Your task to perform on an android device: Clear all items from cart on amazon. Search for "logitech g933" on amazon, select the first entry, add it to the cart, then select checkout. Image 0: 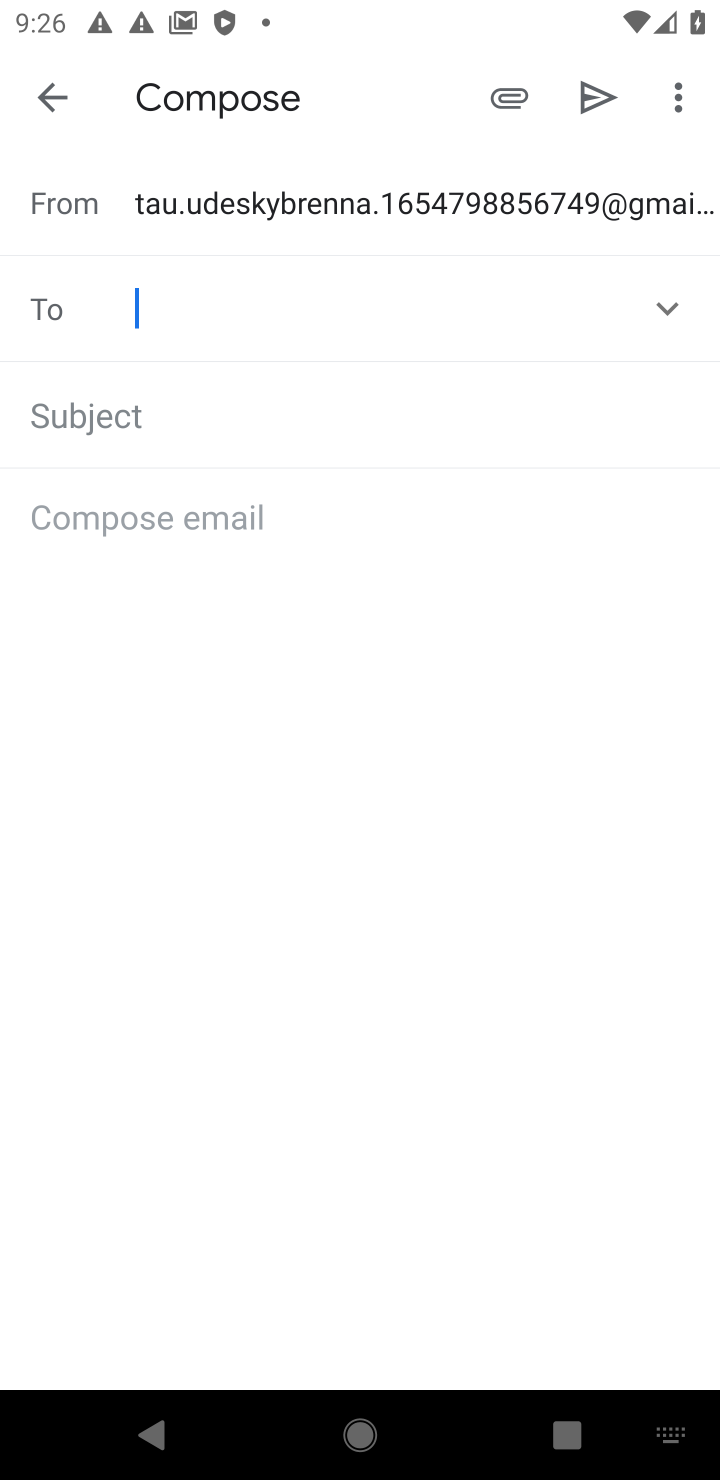
Step 0: press home button
Your task to perform on an android device: Clear all items from cart on amazon. Search for "logitech g933" on amazon, select the first entry, add it to the cart, then select checkout. Image 1: 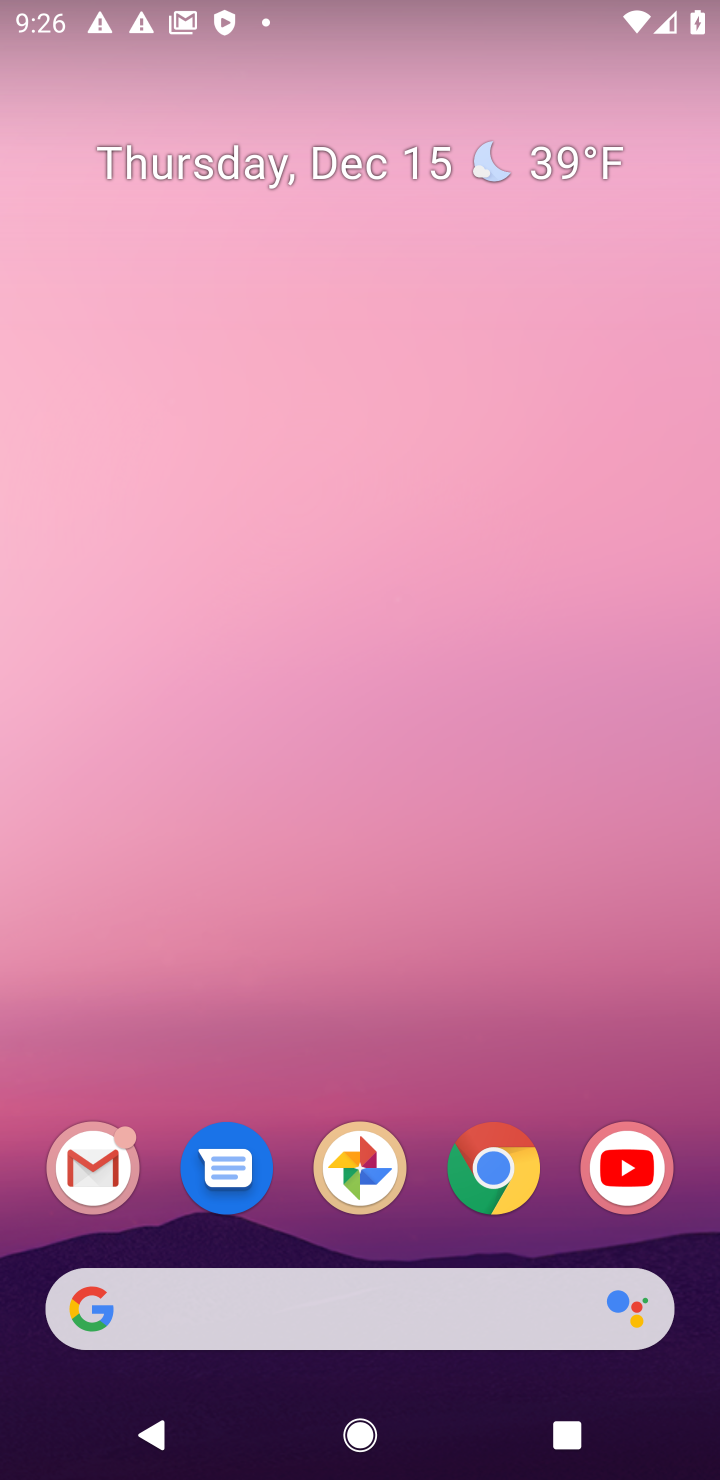
Step 1: click (492, 1156)
Your task to perform on an android device: Clear all items from cart on amazon. Search for "logitech g933" on amazon, select the first entry, add it to the cart, then select checkout. Image 2: 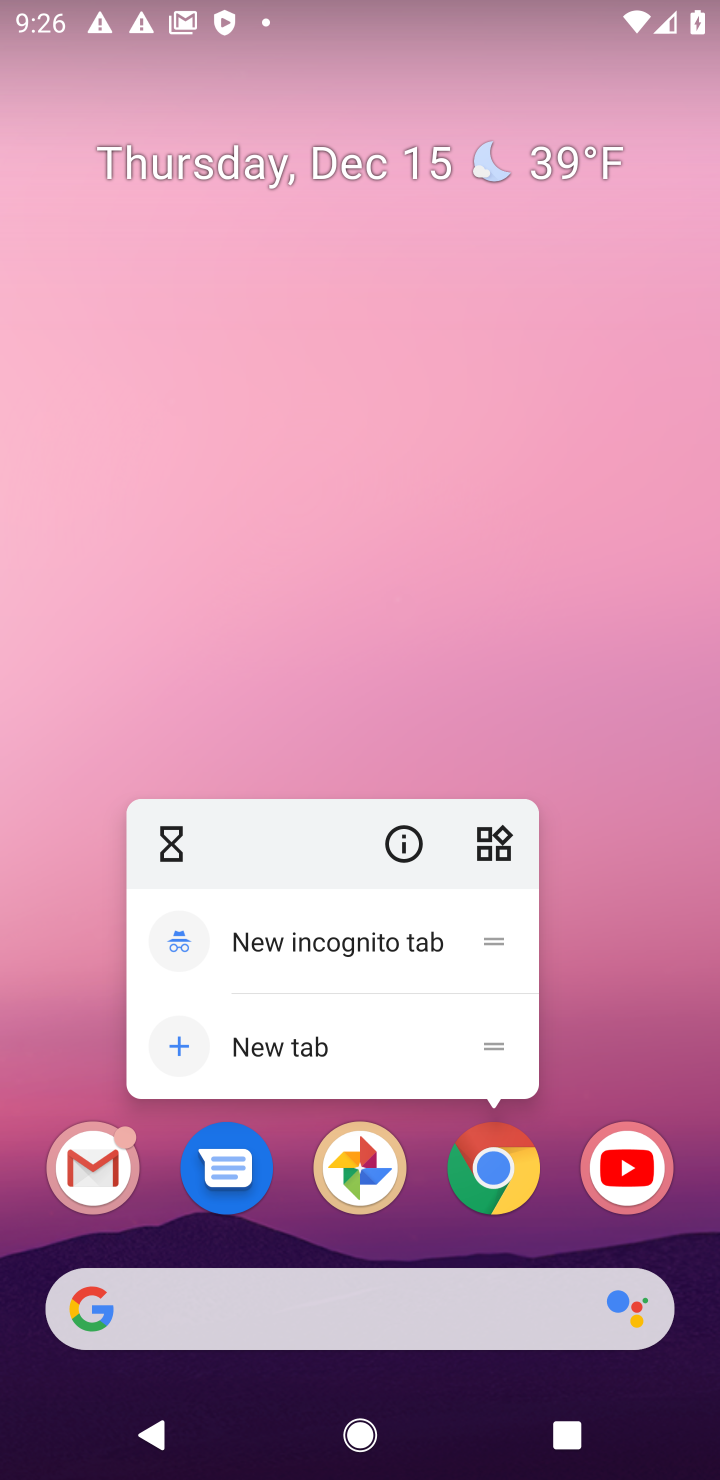
Step 2: click (483, 1158)
Your task to perform on an android device: Clear all items from cart on amazon. Search for "logitech g933" on amazon, select the first entry, add it to the cart, then select checkout. Image 3: 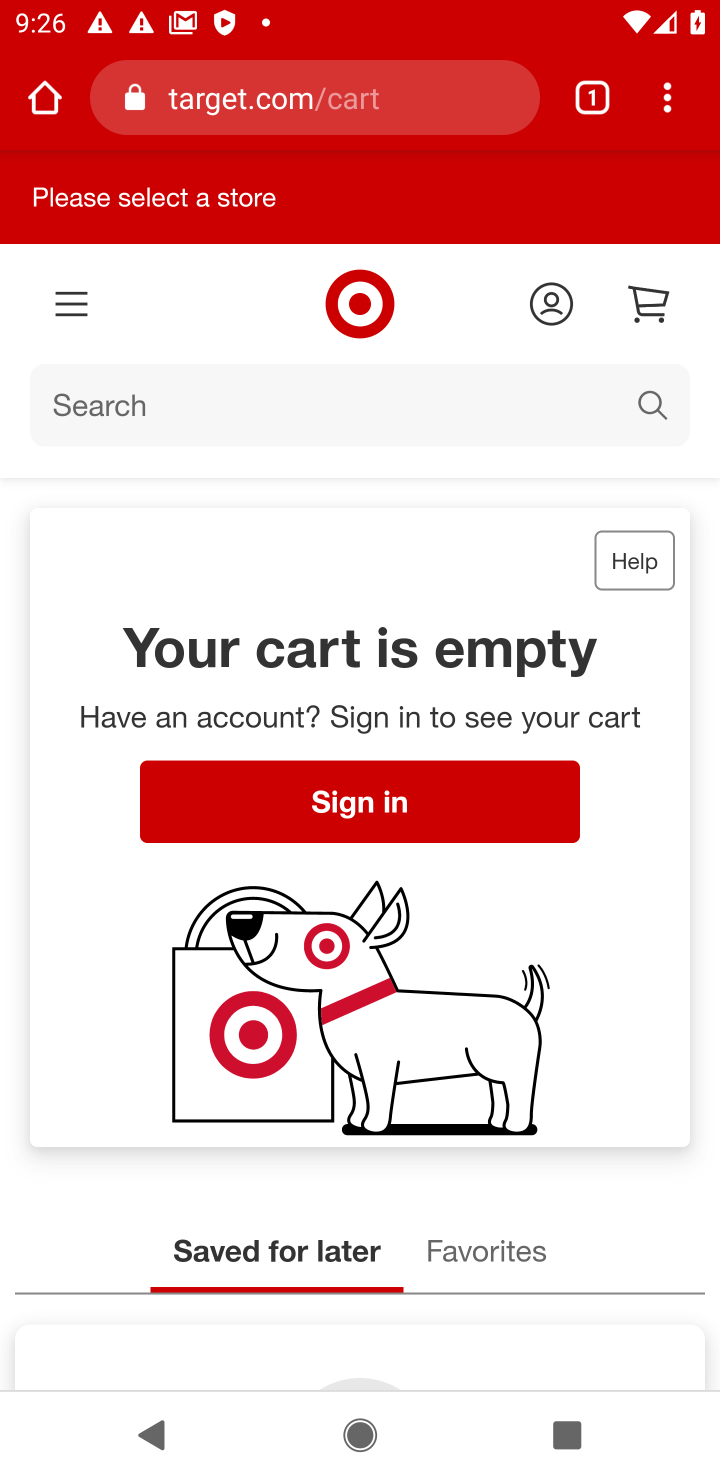
Step 3: click (367, 105)
Your task to perform on an android device: Clear all items from cart on amazon. Search for "logitech g933" on amazon, select the first entry, add it to the cart, then select checkout. Image 4: 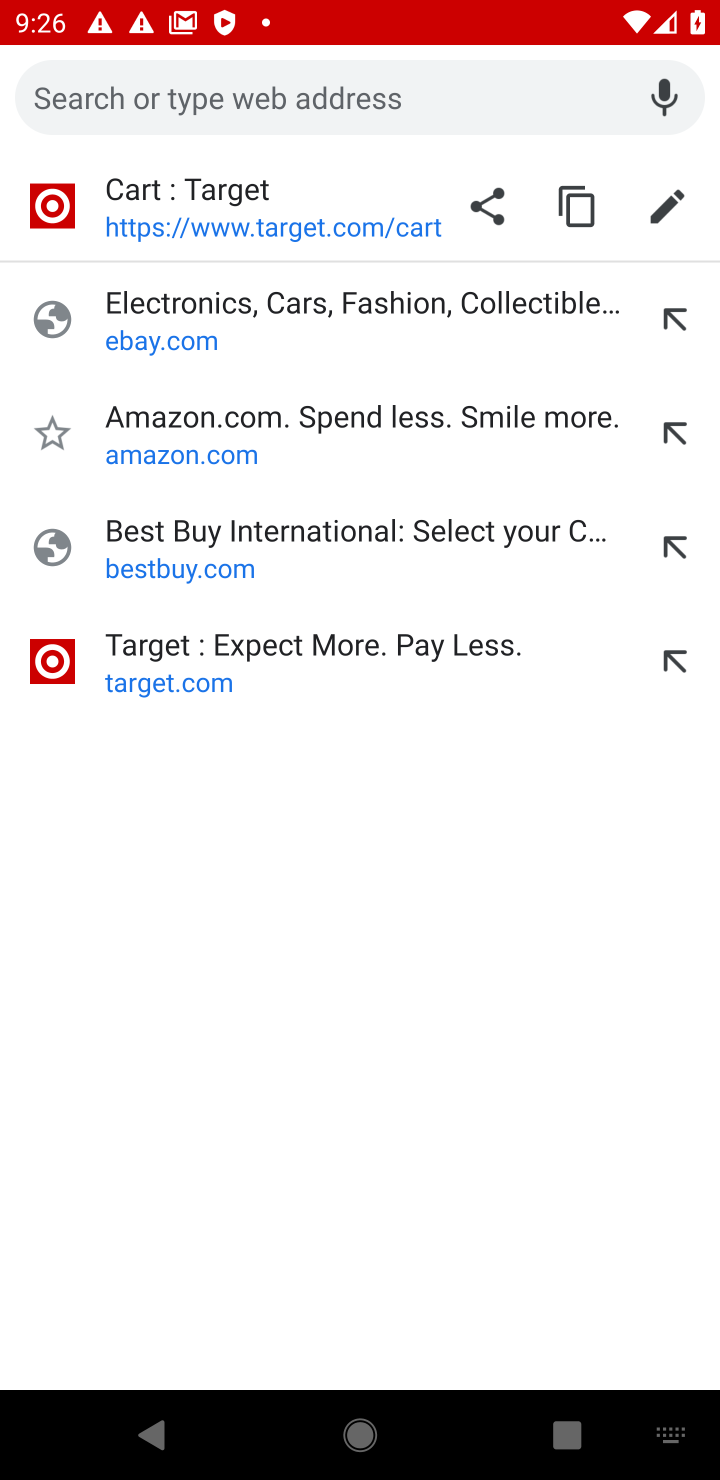
Step 4: click (244, 432)
Your task to perform on an android device: Clear all items from cart on amazon. Search for "logitech g933" on amazon, select the first entry, add it to the cart, then select checkout. Image 5: 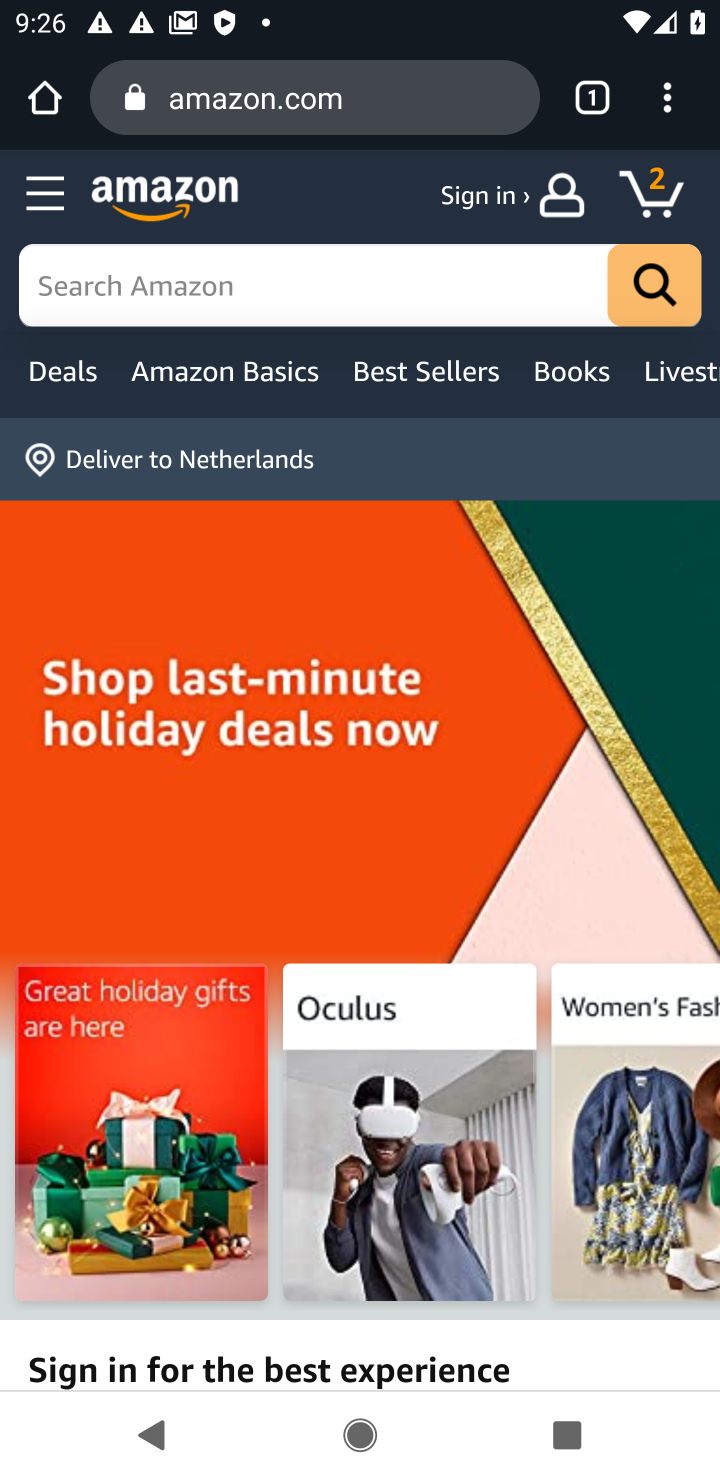
Step 5: click (452, 278)
Your task to perform on an android device: Clear all items from cart on amazon. Search for "logitech g933" on amazon, select the first entry, add it to the cart, then select checkout. Image 6: 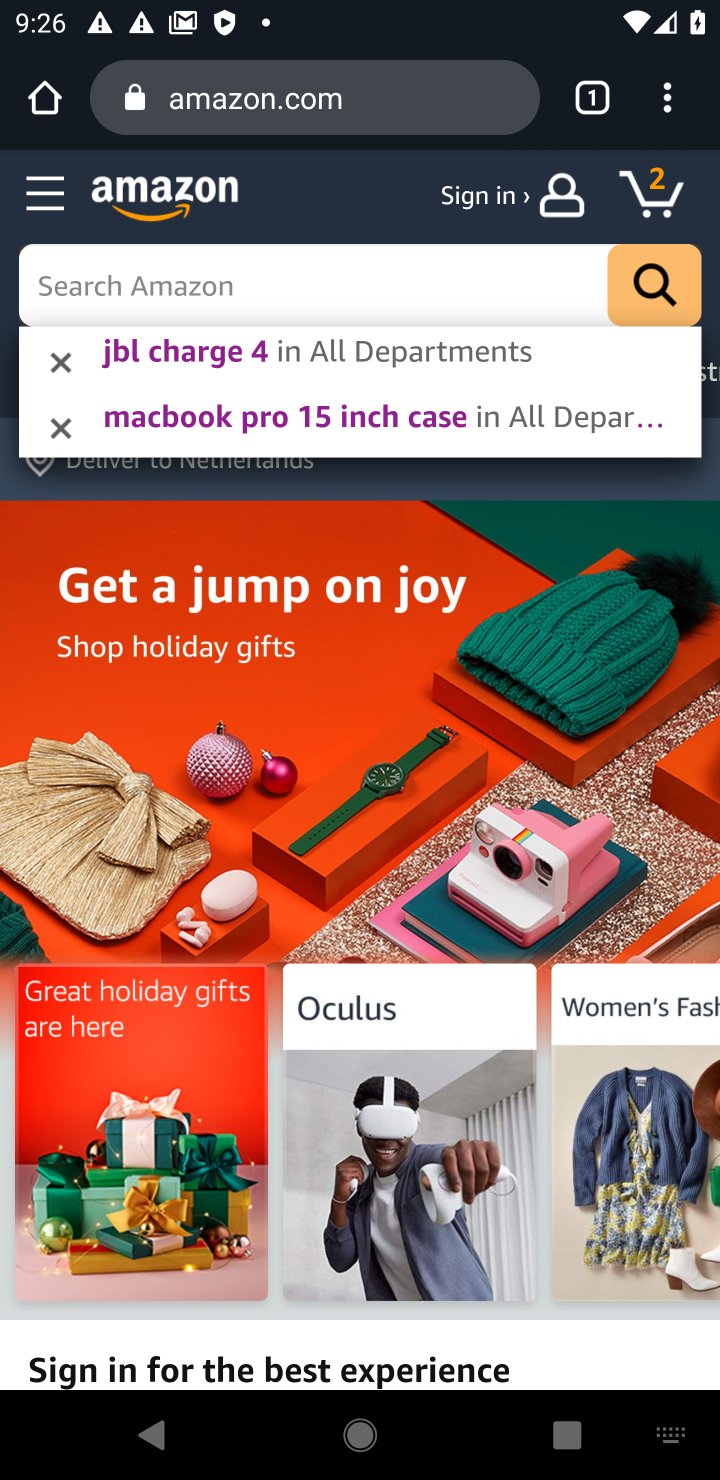
Step 6: click (647, 171)
Your task to perform on an android device: Clear all items from cart on amazon. Search for "logitech g933" on amazon, select the first entry, add it to the cart, then select checkout. Image 7: 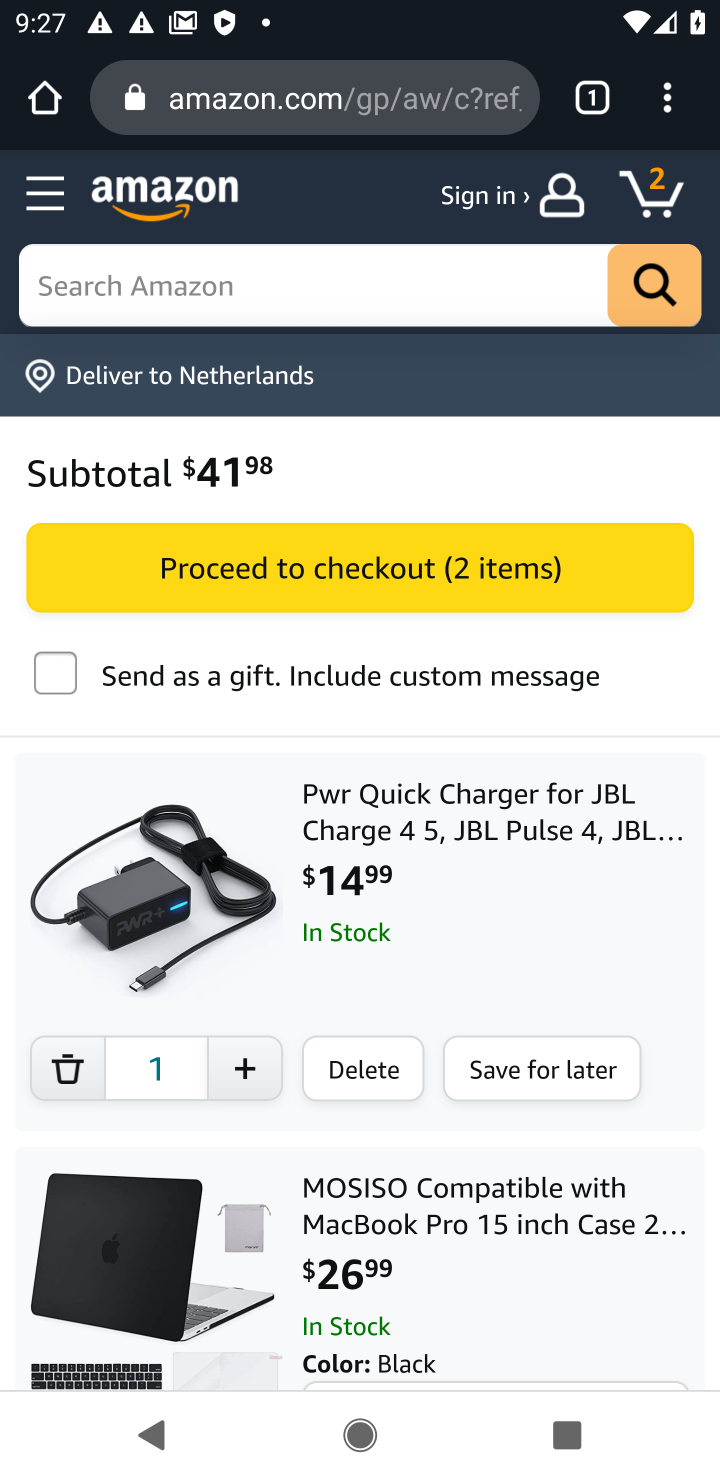
Step 7: click (55, 1074)
Your task to perform on an android device: Clear all items from cart on amazon. Search for "logitech g933" on amazon, select the first entry, add it to the cart, then select checkout. Image 8: 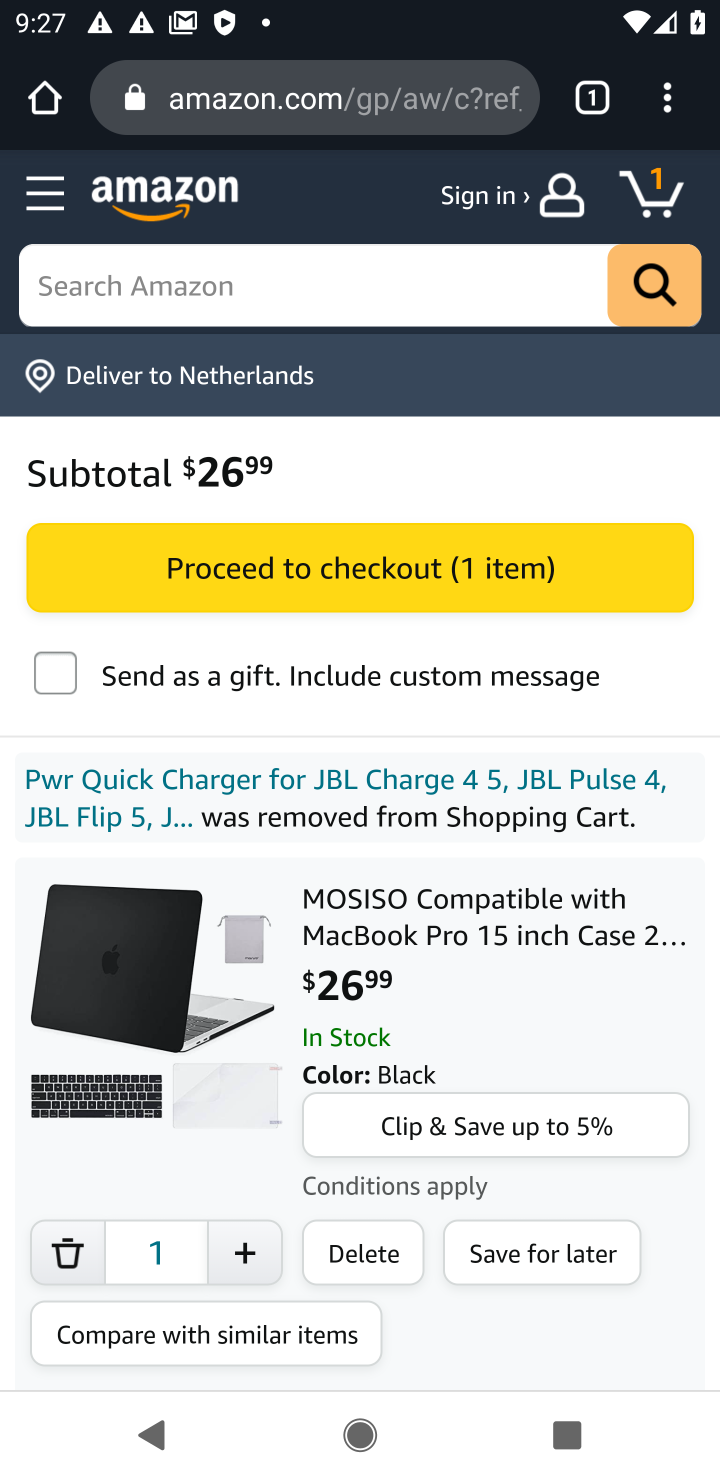
Step 8: click (56, 1252)
Your task to perform on an android device: Clear all items from cart on amazon. Search for "logitech g933" on amazon, select the first entry, add it to the cart, then select checkout. Image 9: 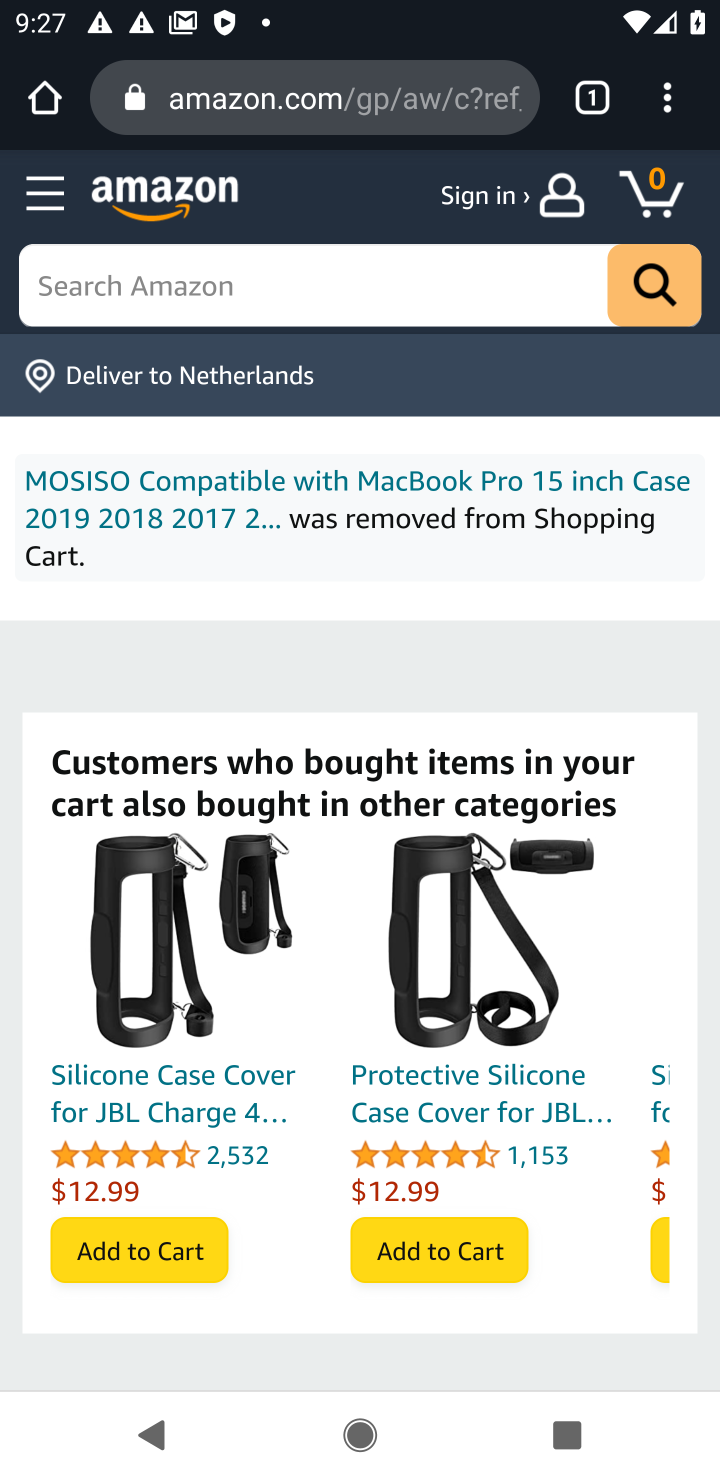
Step 9: click (370, 282)
Your task to perform on an android device: Clear all items from cart on amazon. Search for "logitech g933" on amazon, select the first entry, add it to the cart, then select checkout. Image 10: 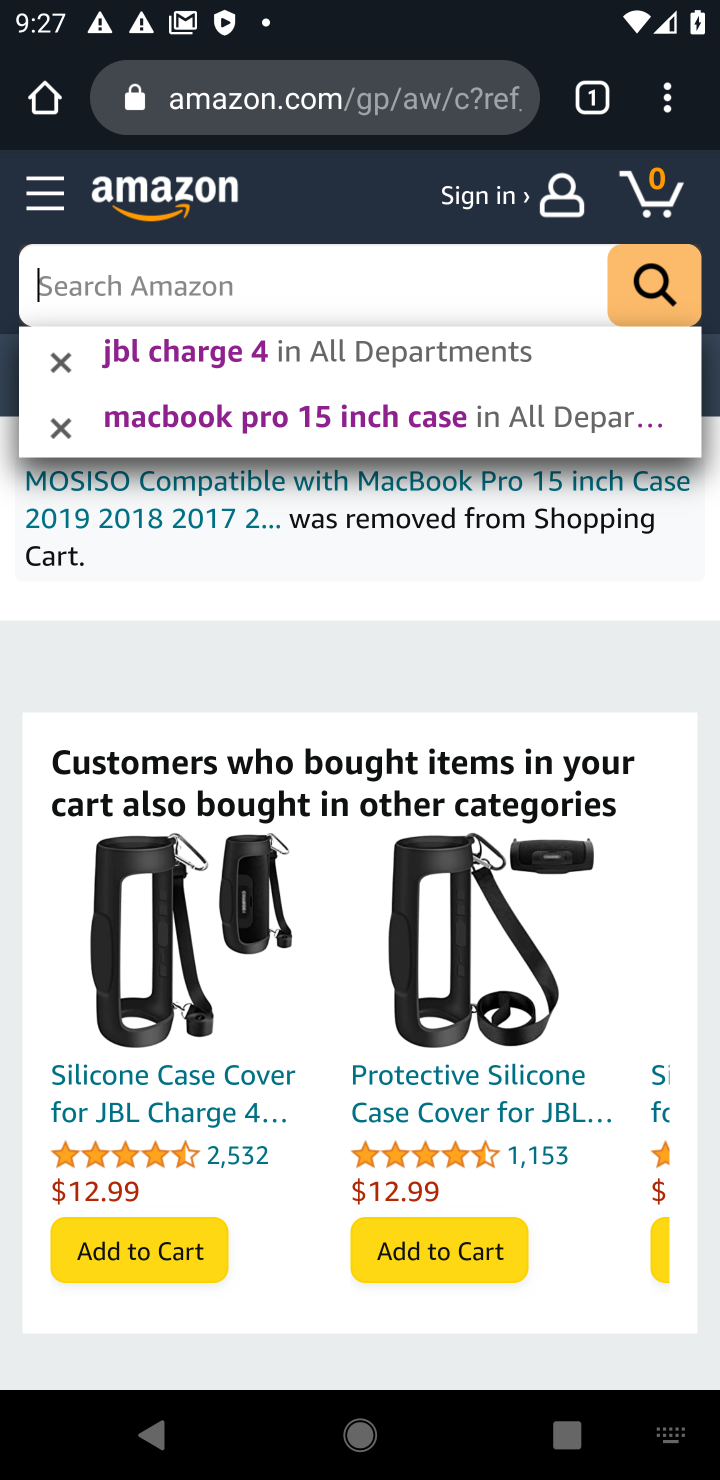
Step 10: type "logitech g933"
Your task to perform on an android device: Clear all items from cart on amazon. Search for "logitech g933" on amazon, select the first entry, add it to the cart, then select checkout. Image 11: 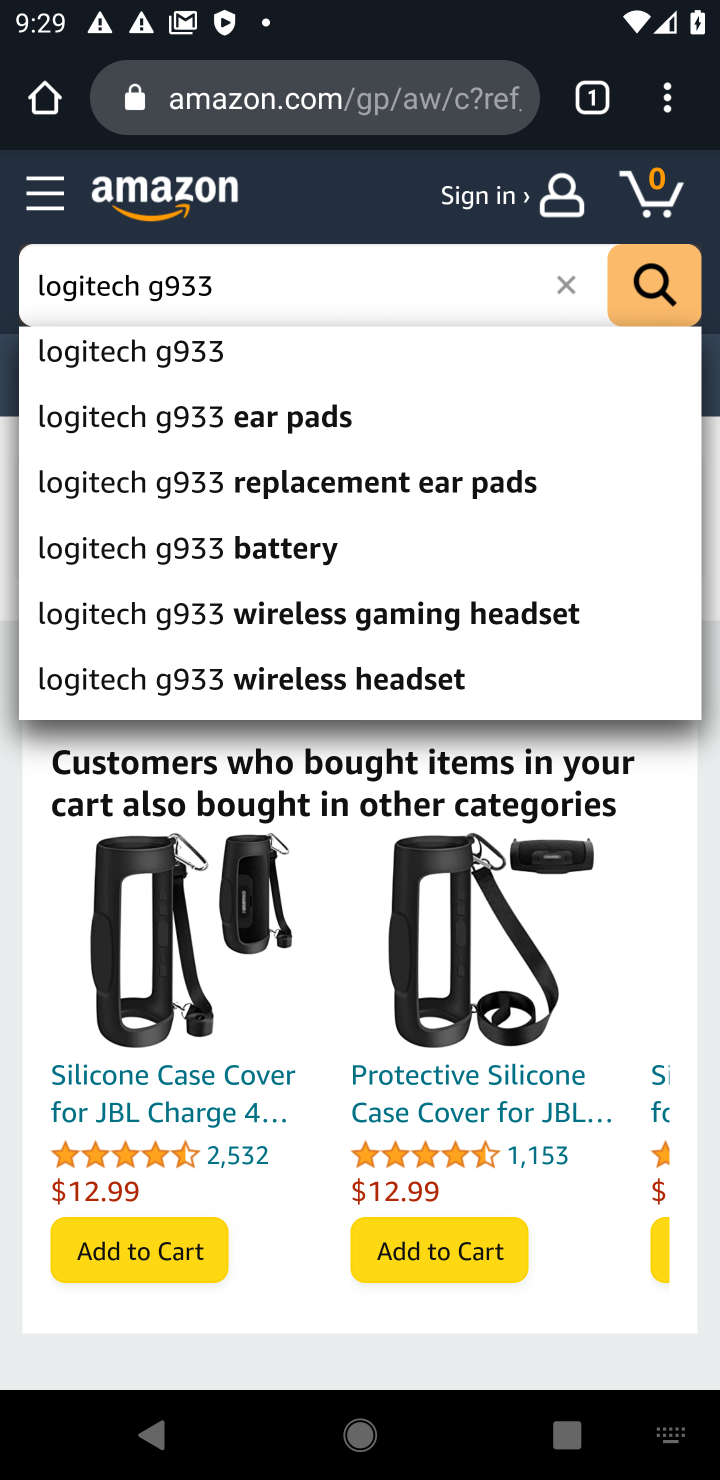
Step 11: click (232, 343)
Your task to perform on an android device: Clear all items from cart on amazon. Search for "logitech g933" on amazon, select the first entry, add it to the cart, then select checkout. Image 12: 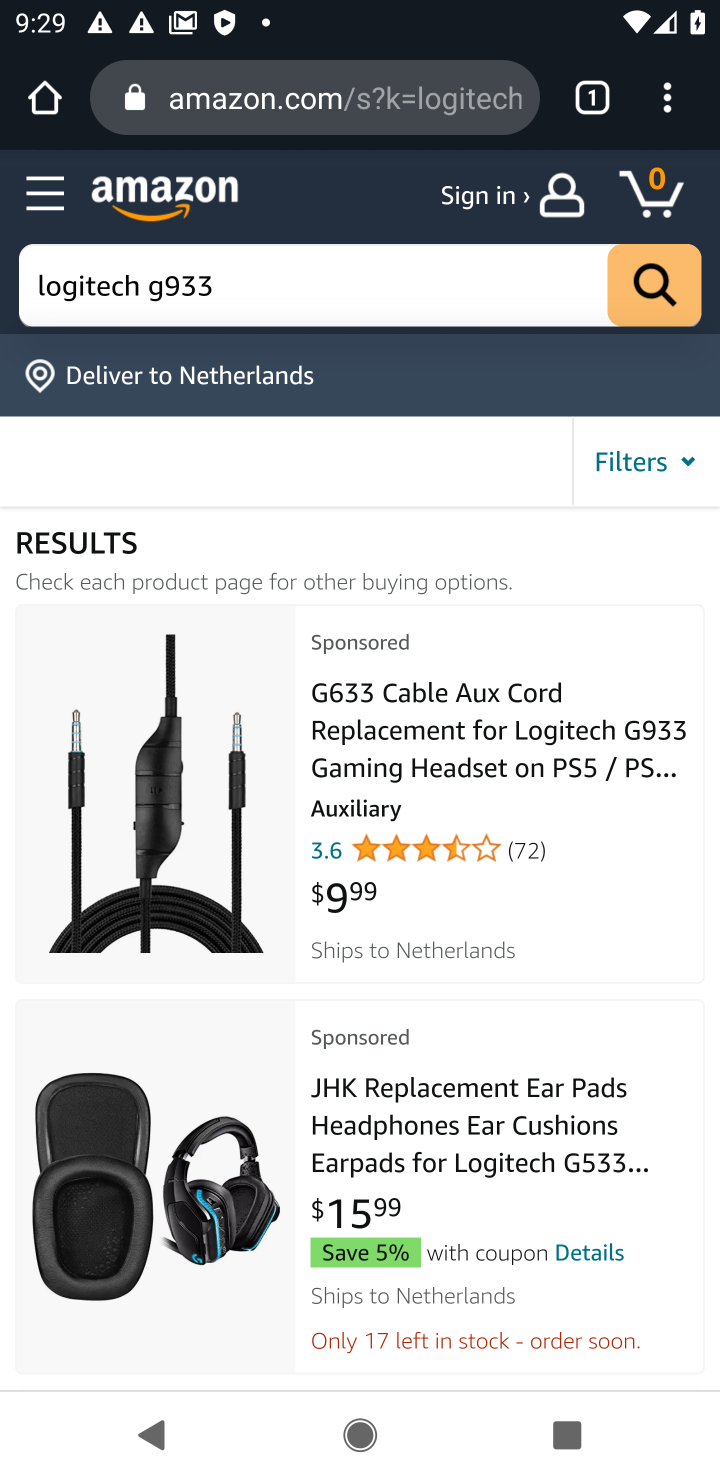
Step 12: click (566, 747)
Your task to perform on an android device: Clear all items from cart on amazon. Search for "logitech g933" on amazon, select the first entry, add it to the cart, then select checkout. Image 13: 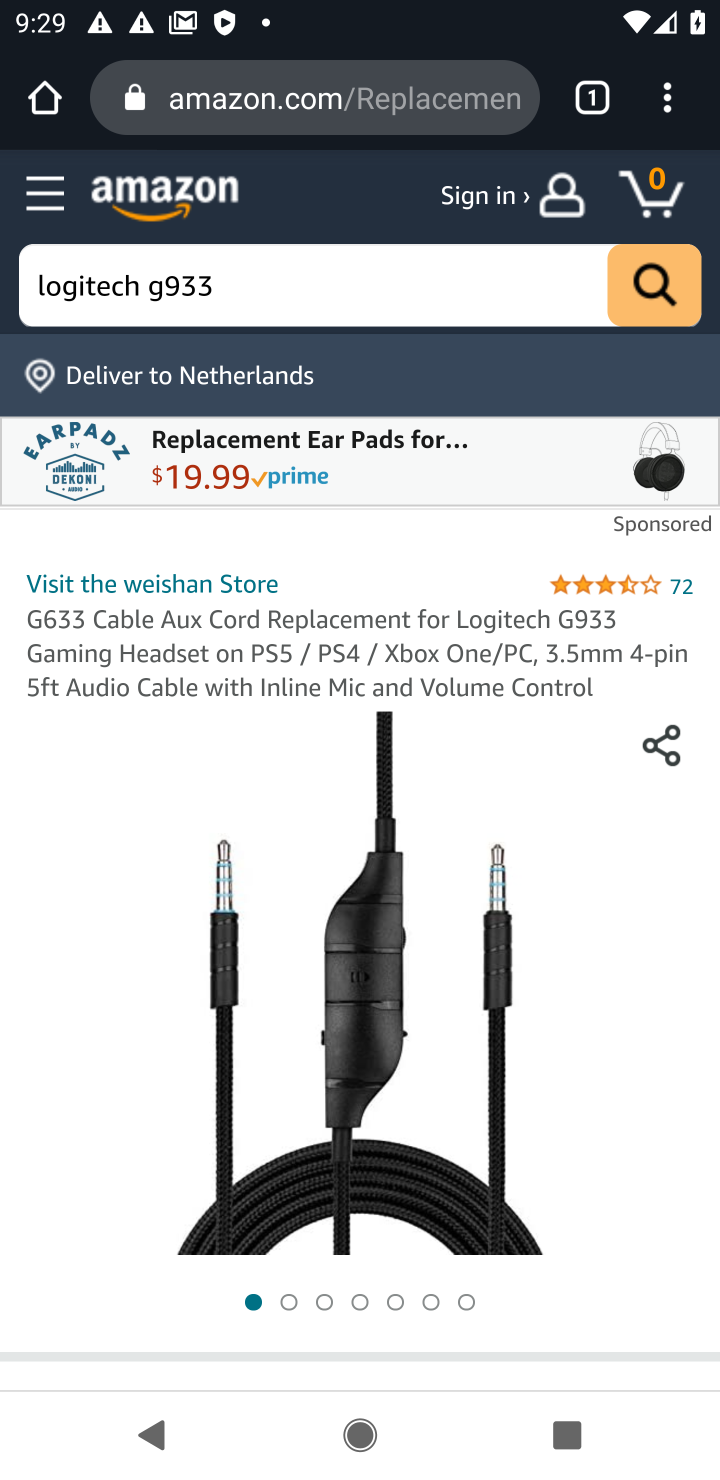
Step 13: drag from (547, 1240) to (449, 358)
Your task to perform on an android device: Clear all items from cart on amazon. Search for "logitech g933" on amazon, select the first entry, add it to the cart, then select checkout. Image 14: 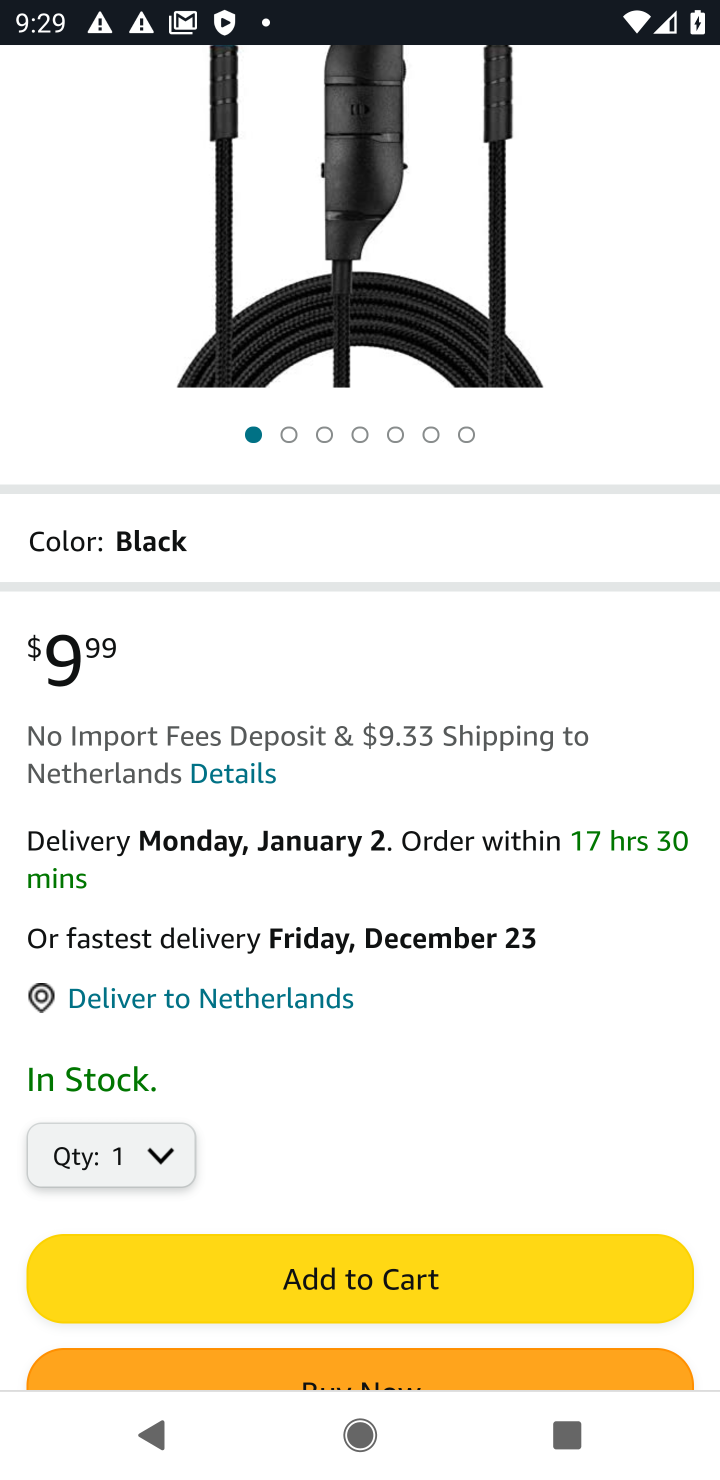
Step 14: click (412, 1265)
Your task to perform on an android device: Clear all items from cart on amazon. Search for "logitech g933" on amazon, select the first entry, add it to the cart, then select checkout. Image 15: 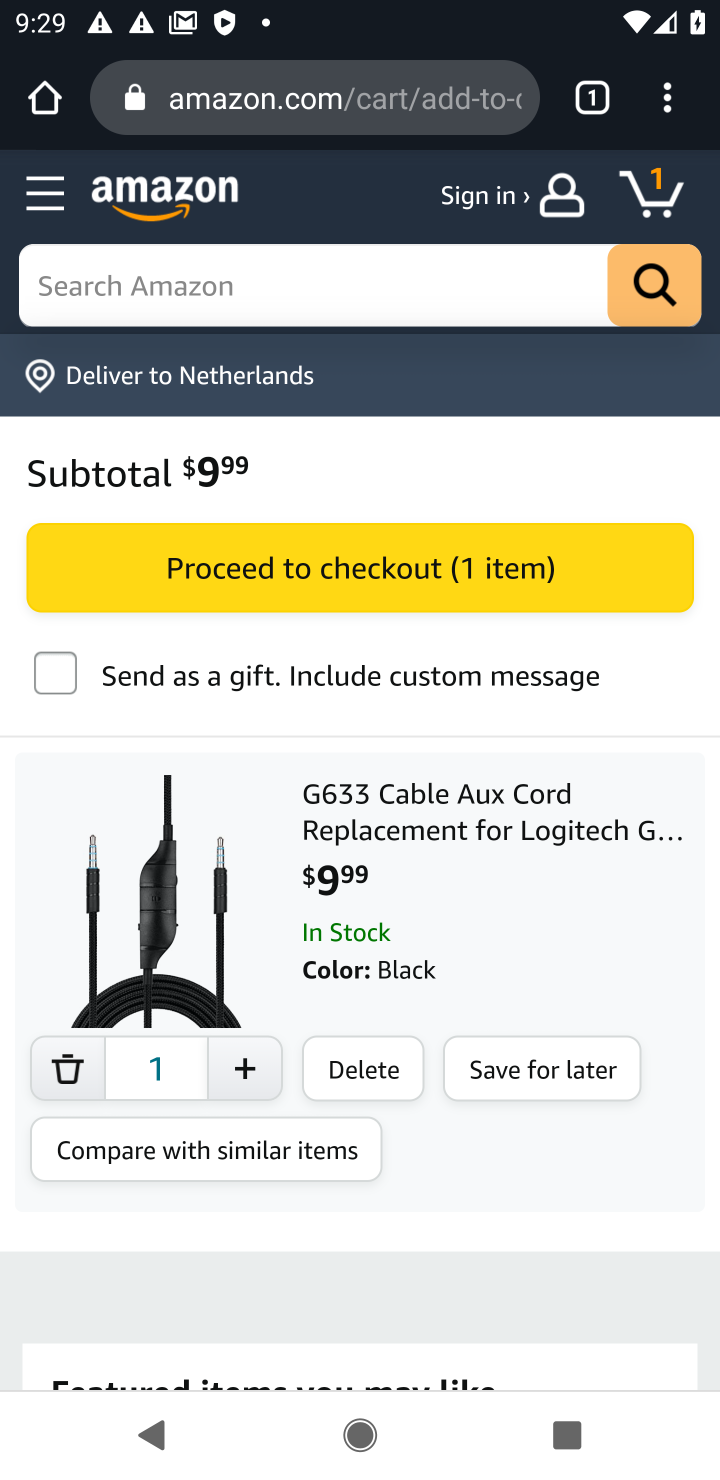
Step 15: click (399, 573)
Your task to perform on an android device: Clear all items from cart on amazon. Search for "logitech g933" on amazon, select the first entry, add it to the cart, then select checkout. Image 16: 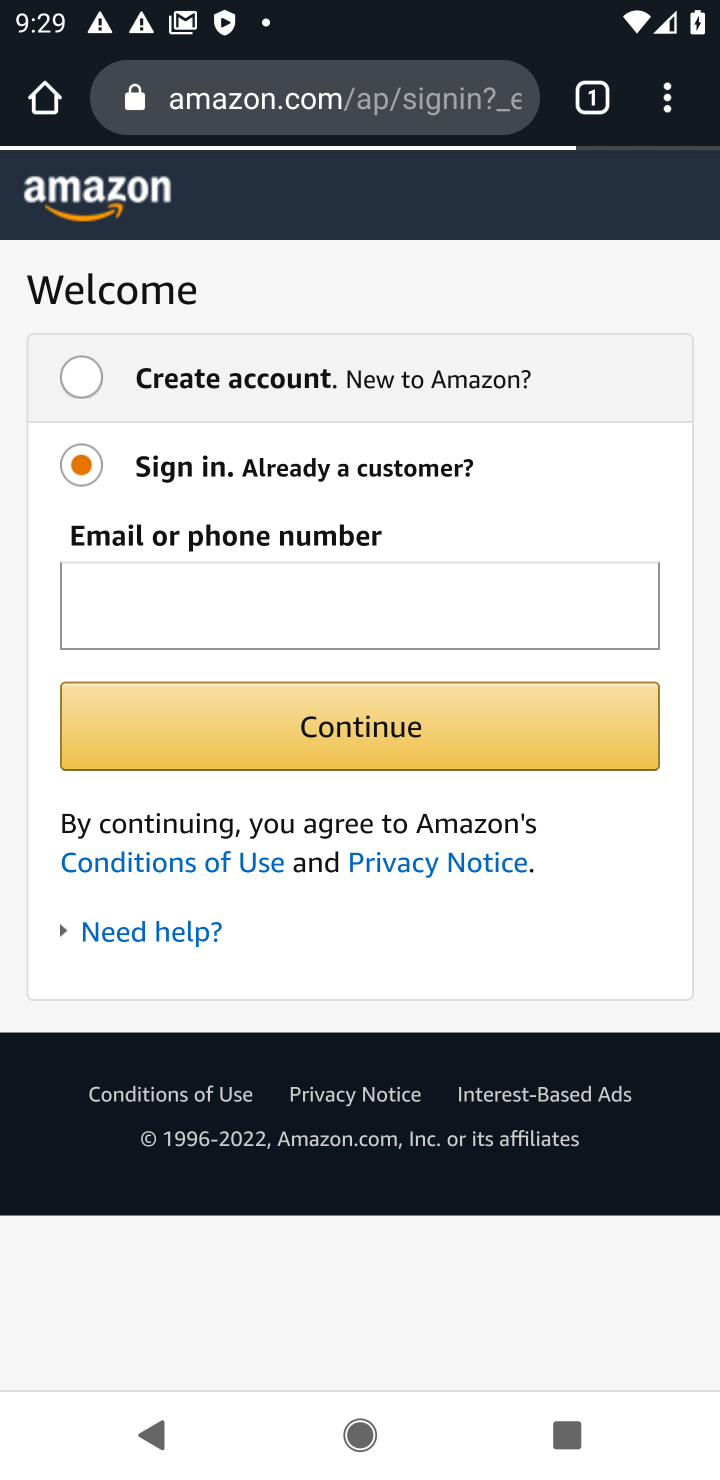
Step 16: task complete